Your task to perform on an android device: Open the map Image 0: 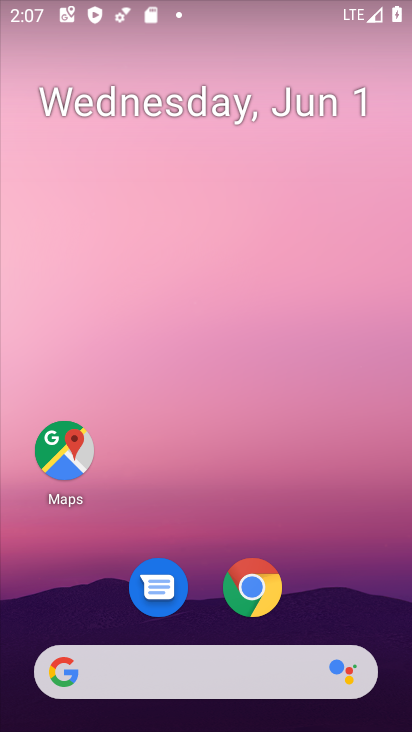
Step 0: click (78, 438)
Your task to perform on an android device: Open the map Image 1: 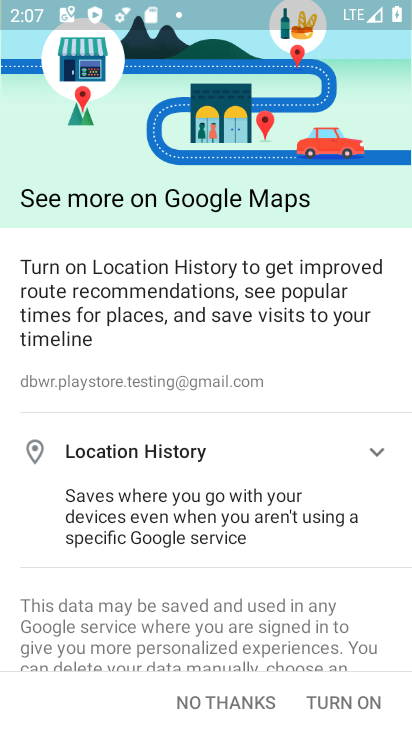
Step 1: task complete